Your task to perform on an android device: Search for Italian restaurants on Maps Image 0: 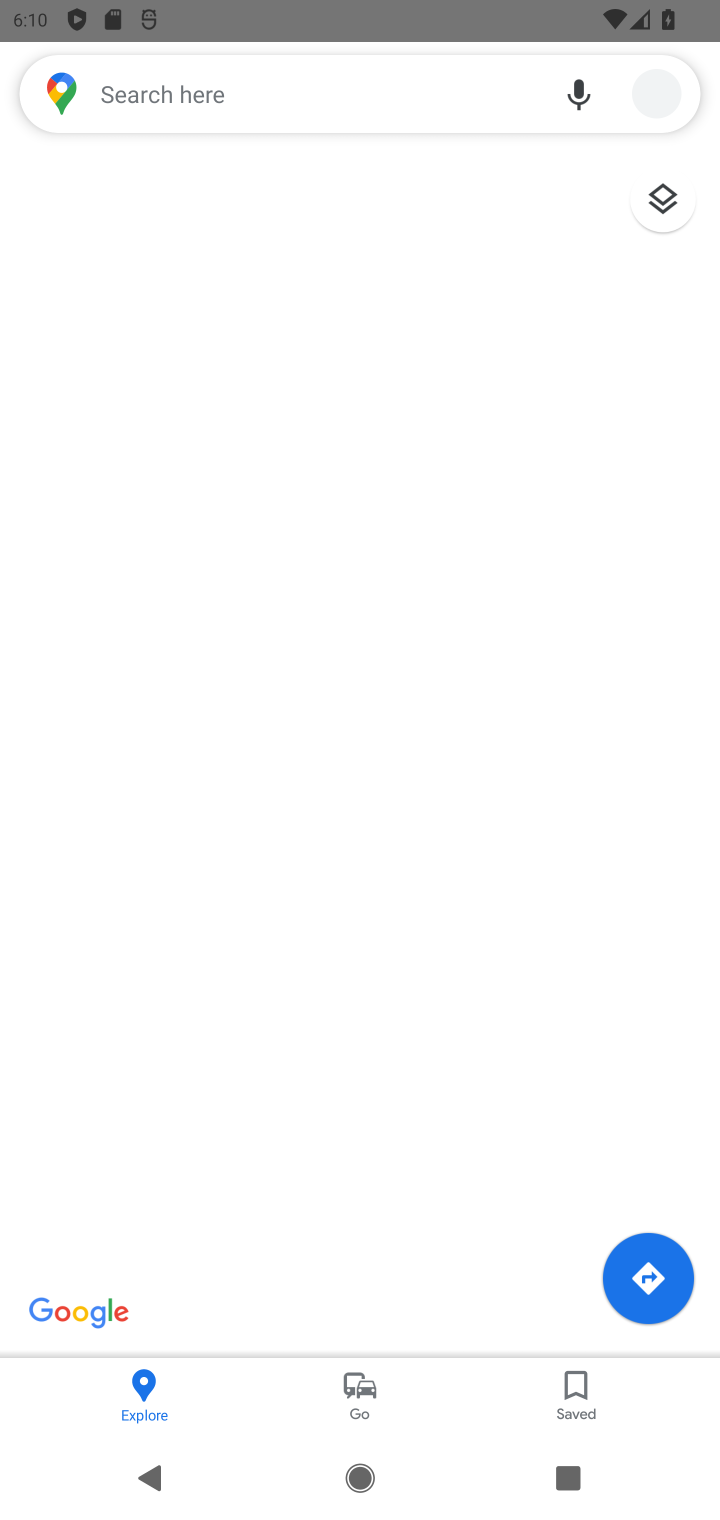
Step 0: press home button
Your task to perform on an android device: Search for Italian restaurants on Maps Image 1: 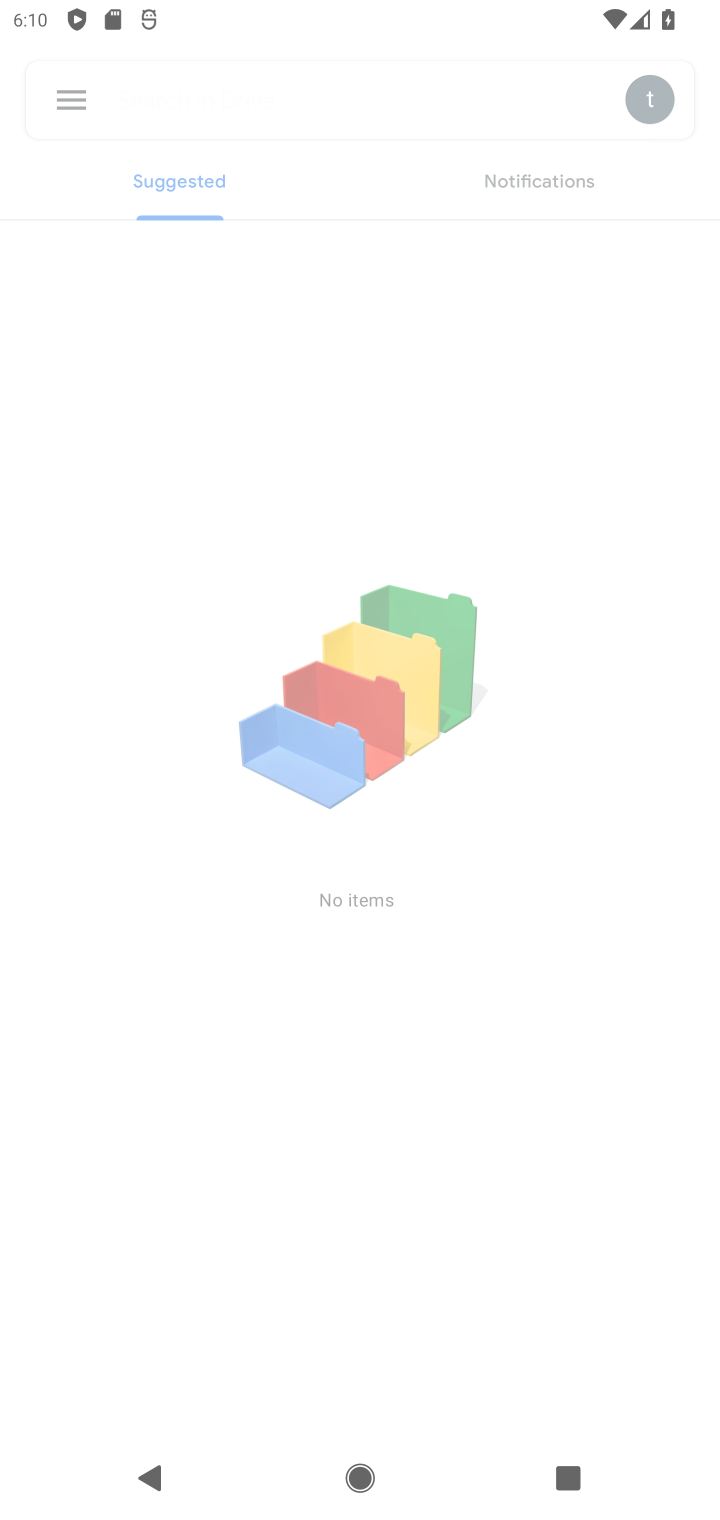
Step 1: press home button
Your task to perform on an android device: Search for Italian restaurants on Maps Image 2: 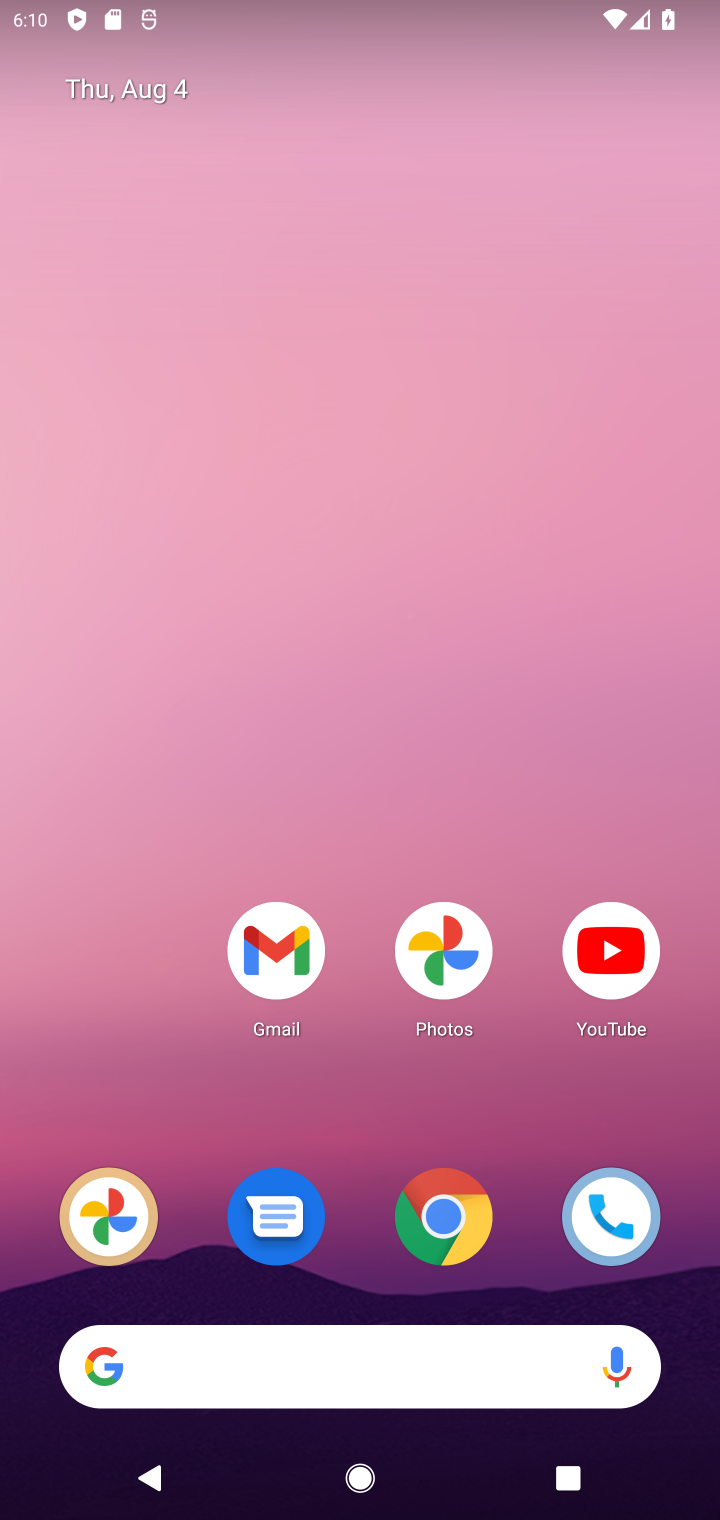
Step 2: drag from (360, 1128) to (300, 259)
Your task to perform on an android device: Search for Italian restaurants on Maps Image 3: 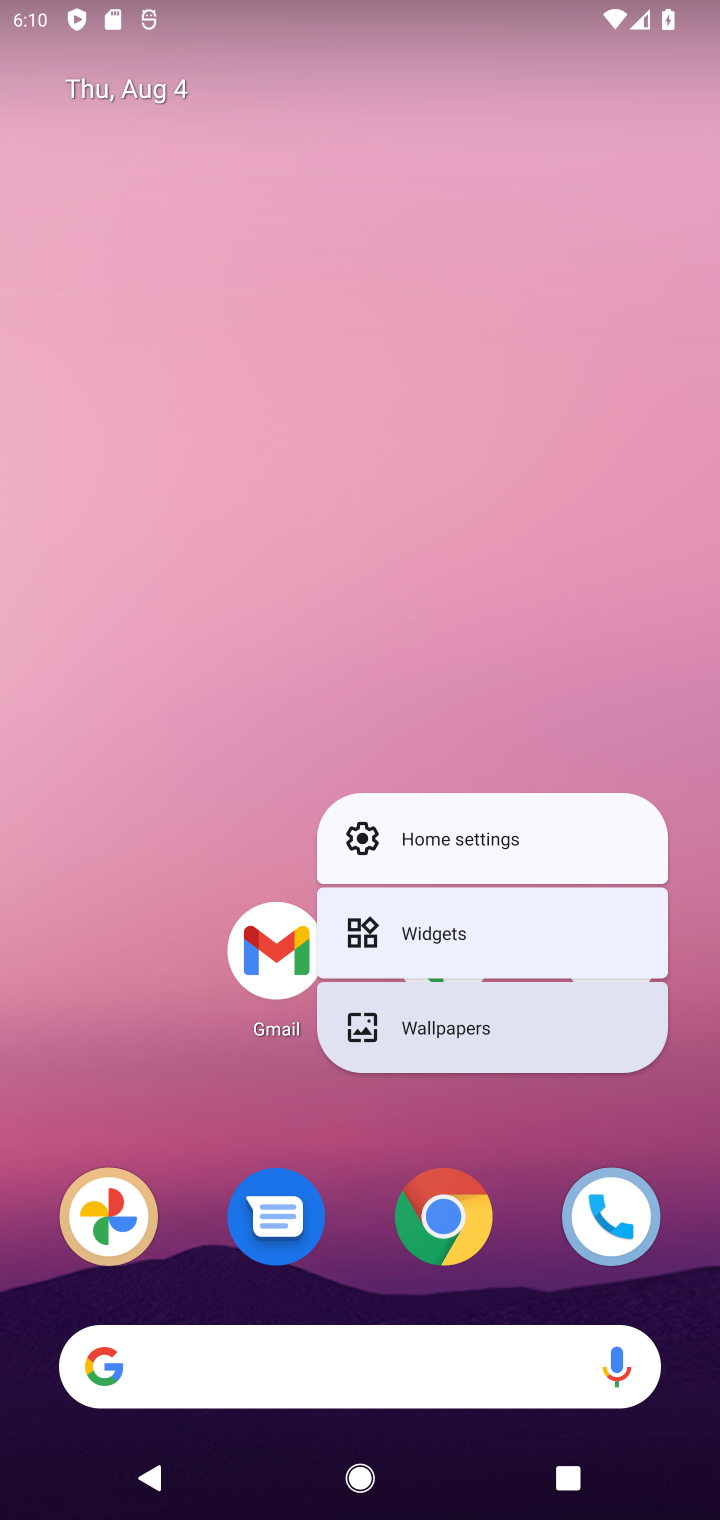
Step 3: click (341, 394)
Your task to perform on an android device: Search for Italian restaurants on Maps Image 4: 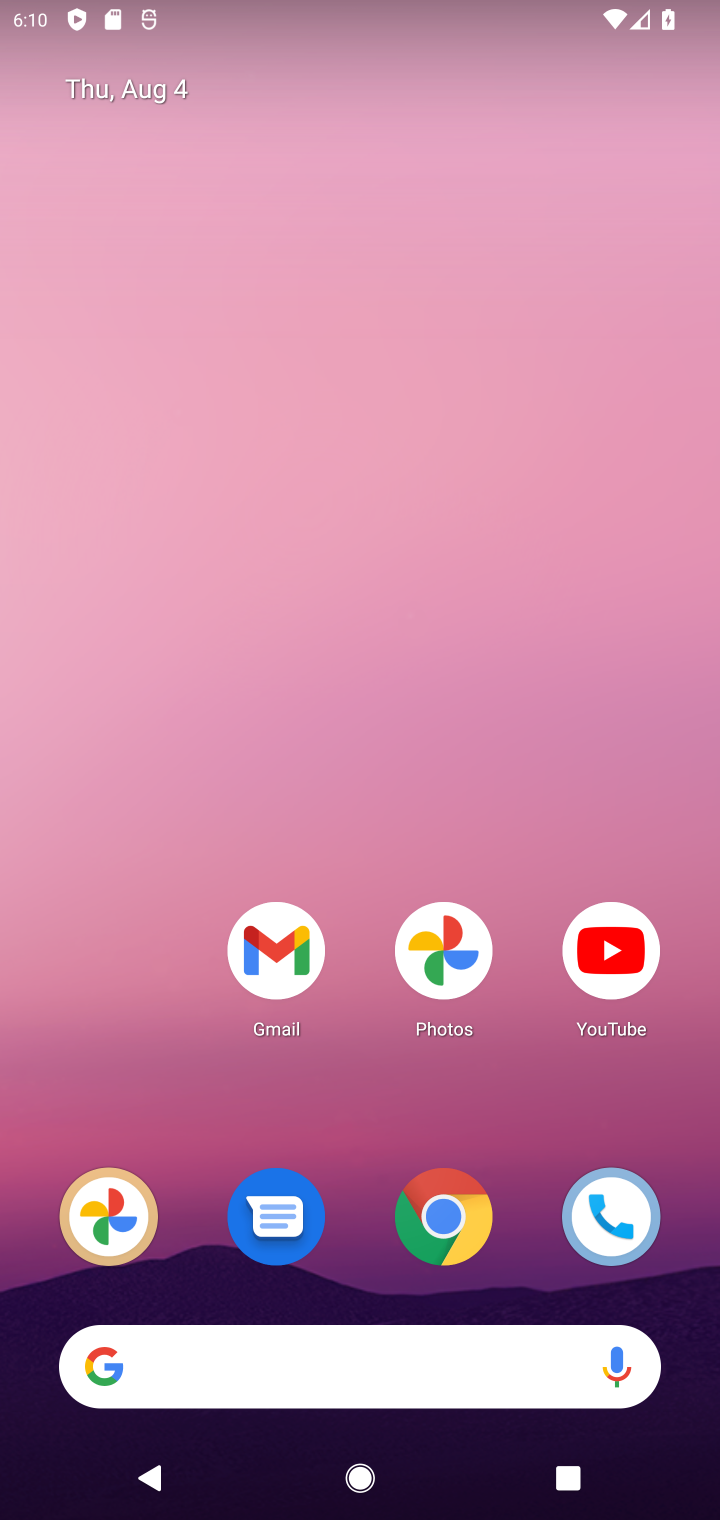
Step 4: drag from (351, 995) to (314, 232)
Your task to perform on an android device: Search for Italian restaurants on Maps Image 5: 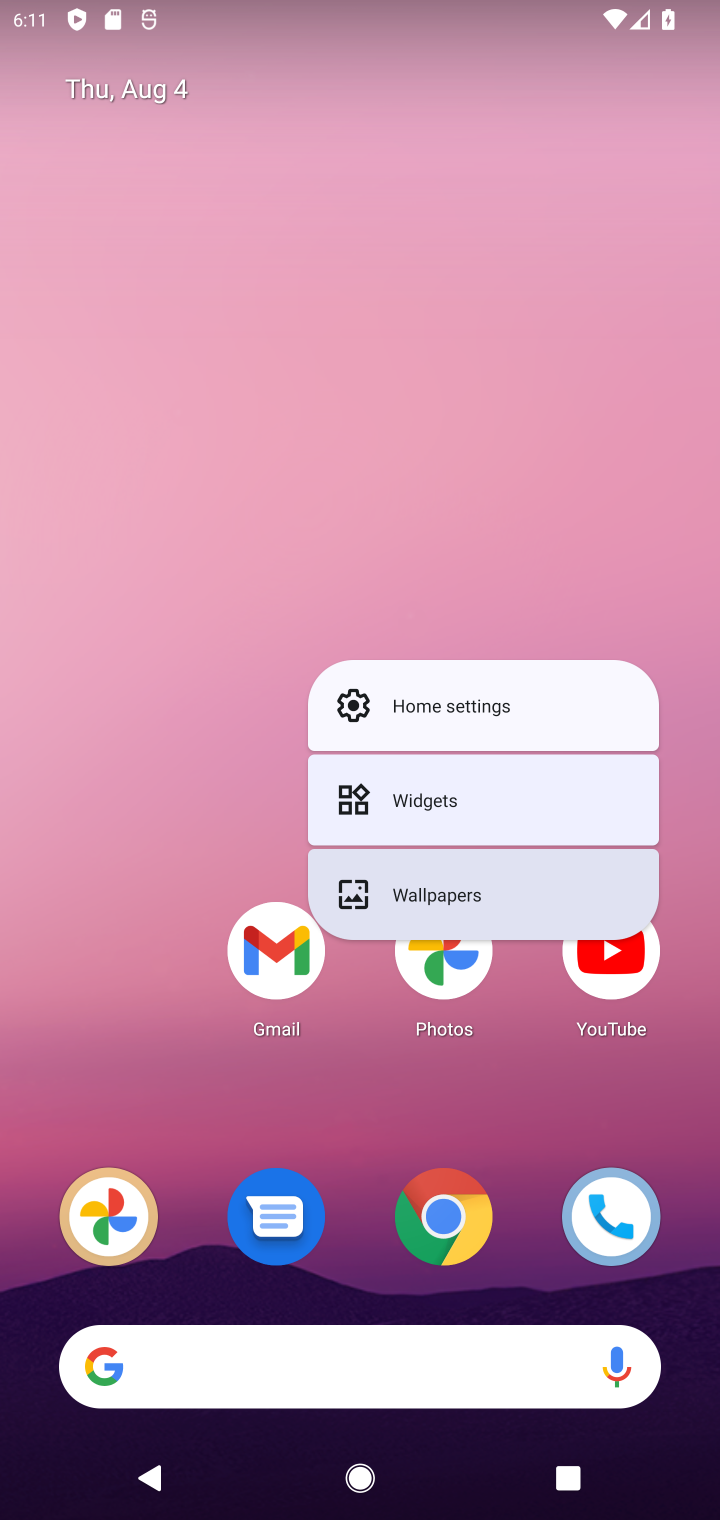
Step 5: drag from (385, 1135) to (350, 202)
Your task to perform on an android device: Search for Italian restaurants on Maps Image 6: 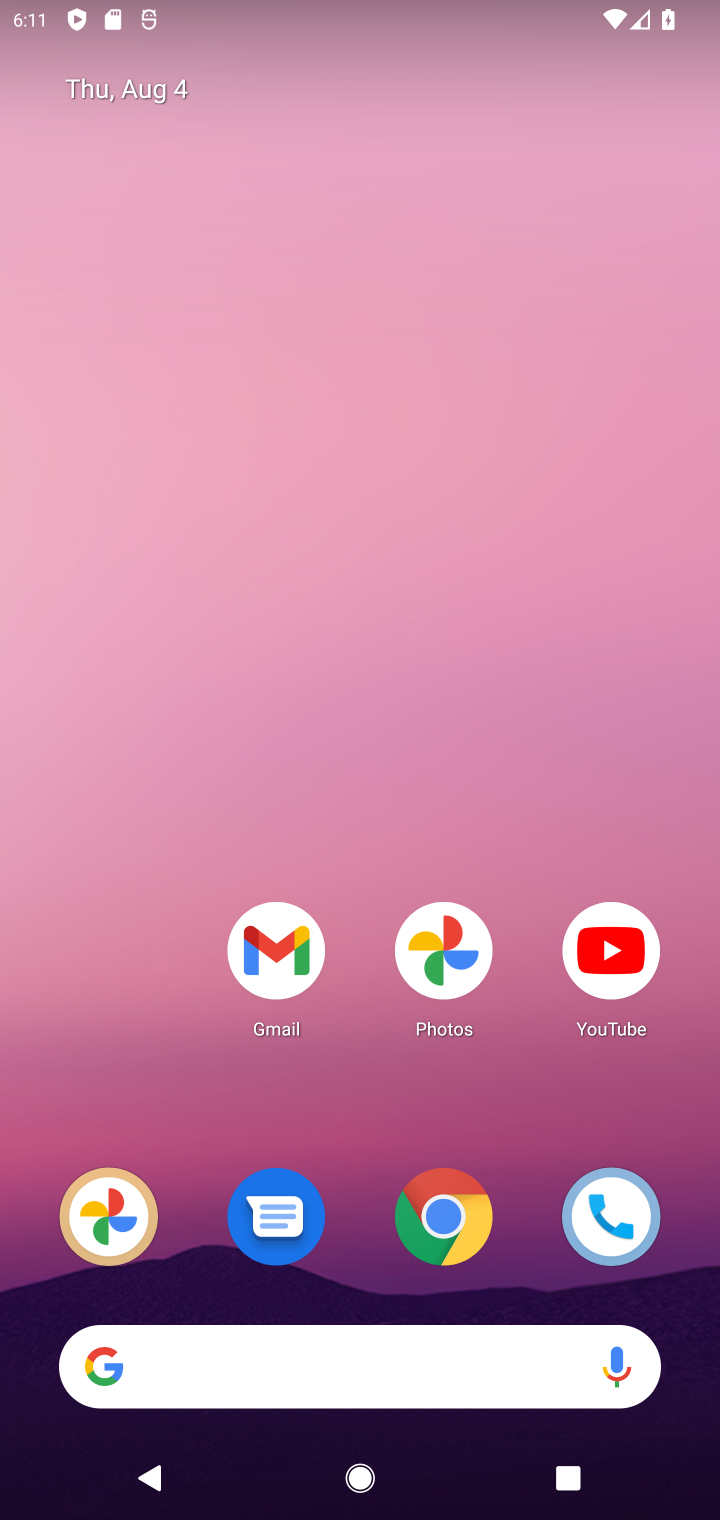
Step 6: drag from (358, 1132) to (374, 102)
Your task to perform on an android device: Search for Italian restaurants on Maps Image 7: 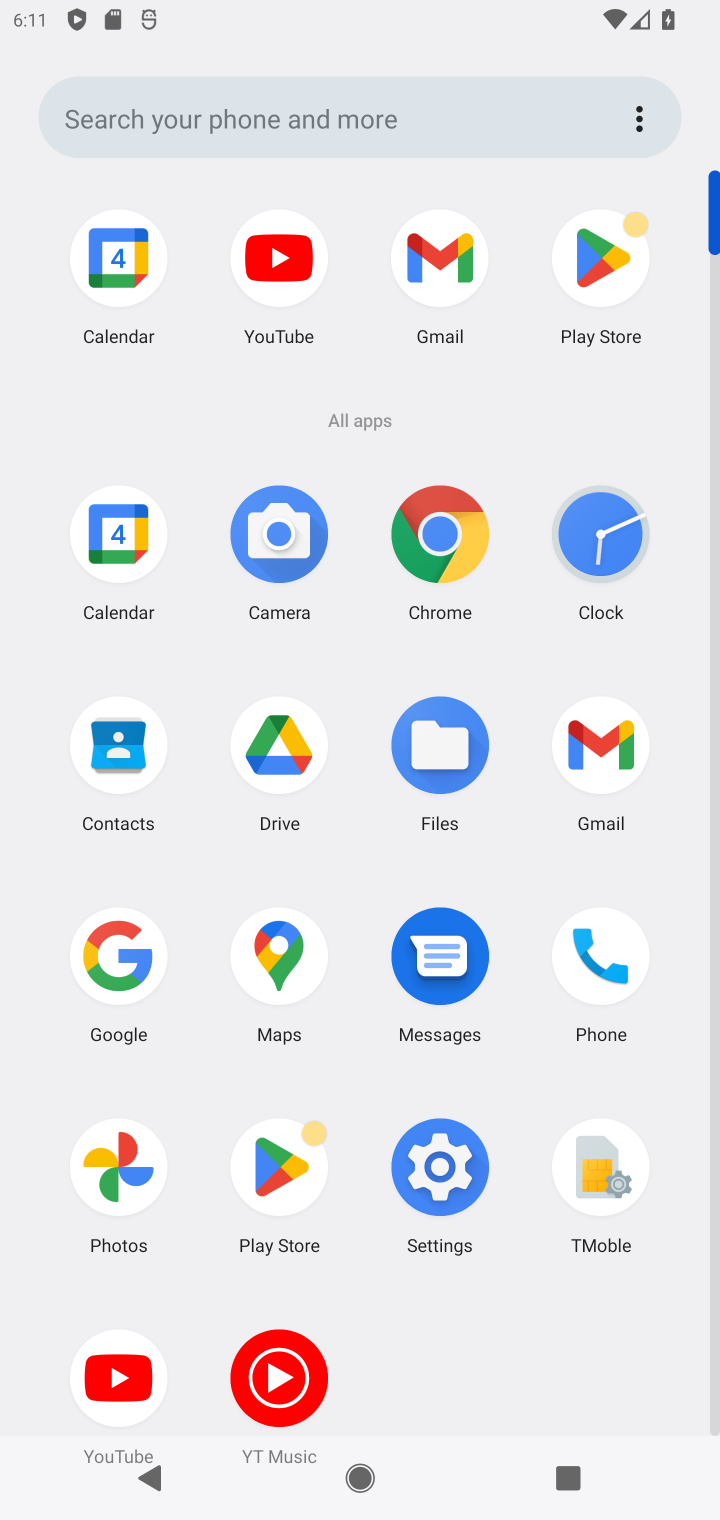
Step 7: click (270, 955)
Your task to perform on an android device: Search for Italian restaurants on Maps Image 8: 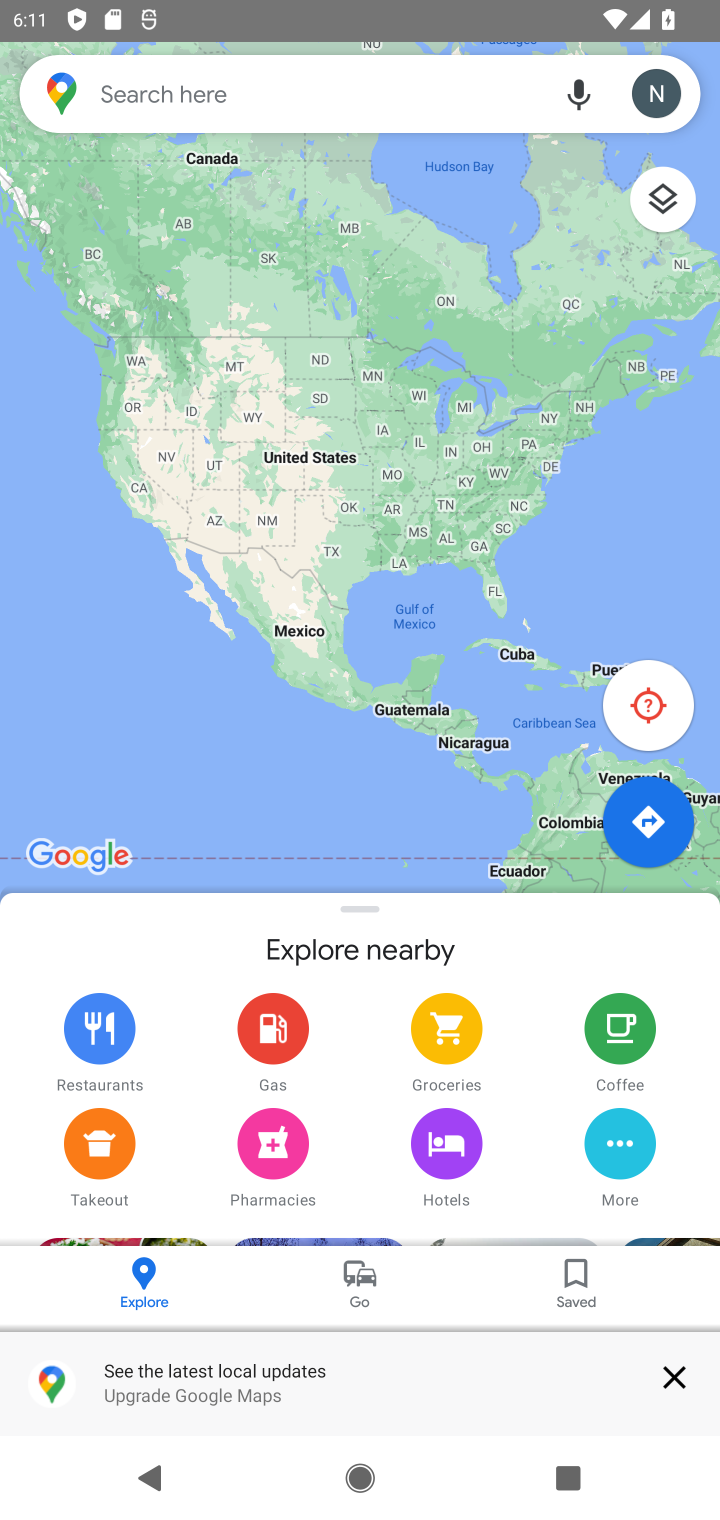
Step 8: click (251, 81)
Your task to perform on an android device: Search for Italian restaurants on Maps Image 9: 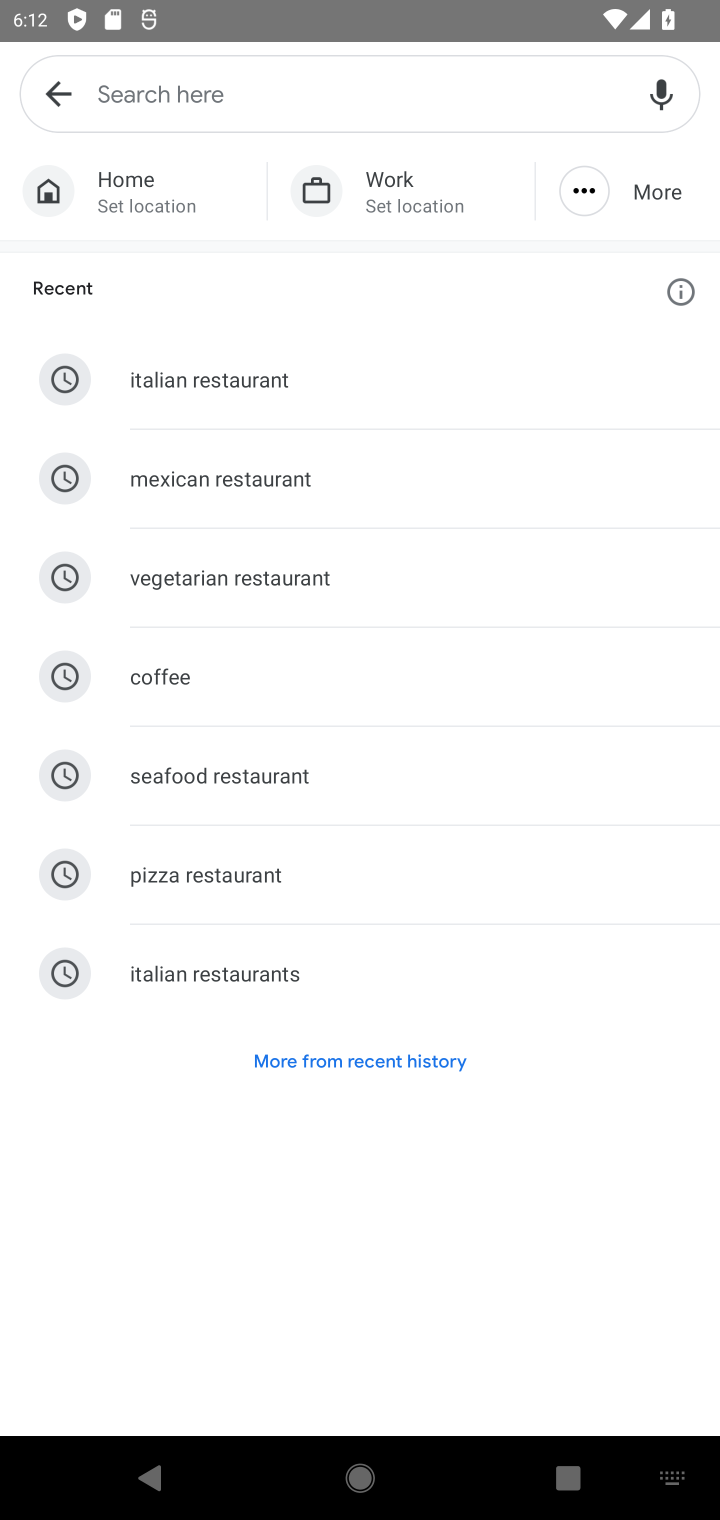
Step 9: click (361, 973)
Your task to perform on an android device: Search for Italian restaurants on Maps Image 10: 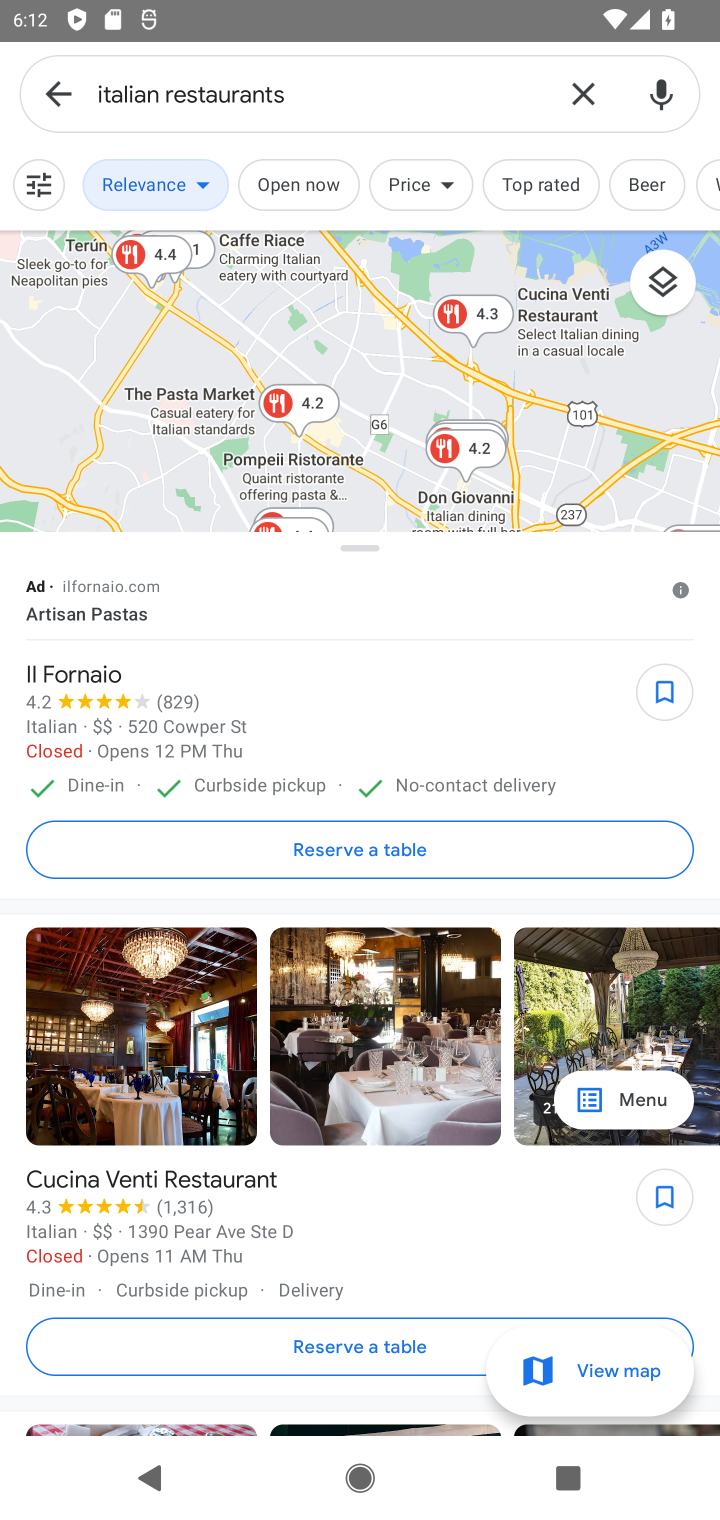
Step 10: click (39, 91)
Your task to perform on an android device: Search for Italian restaurants on Maps Image 11: 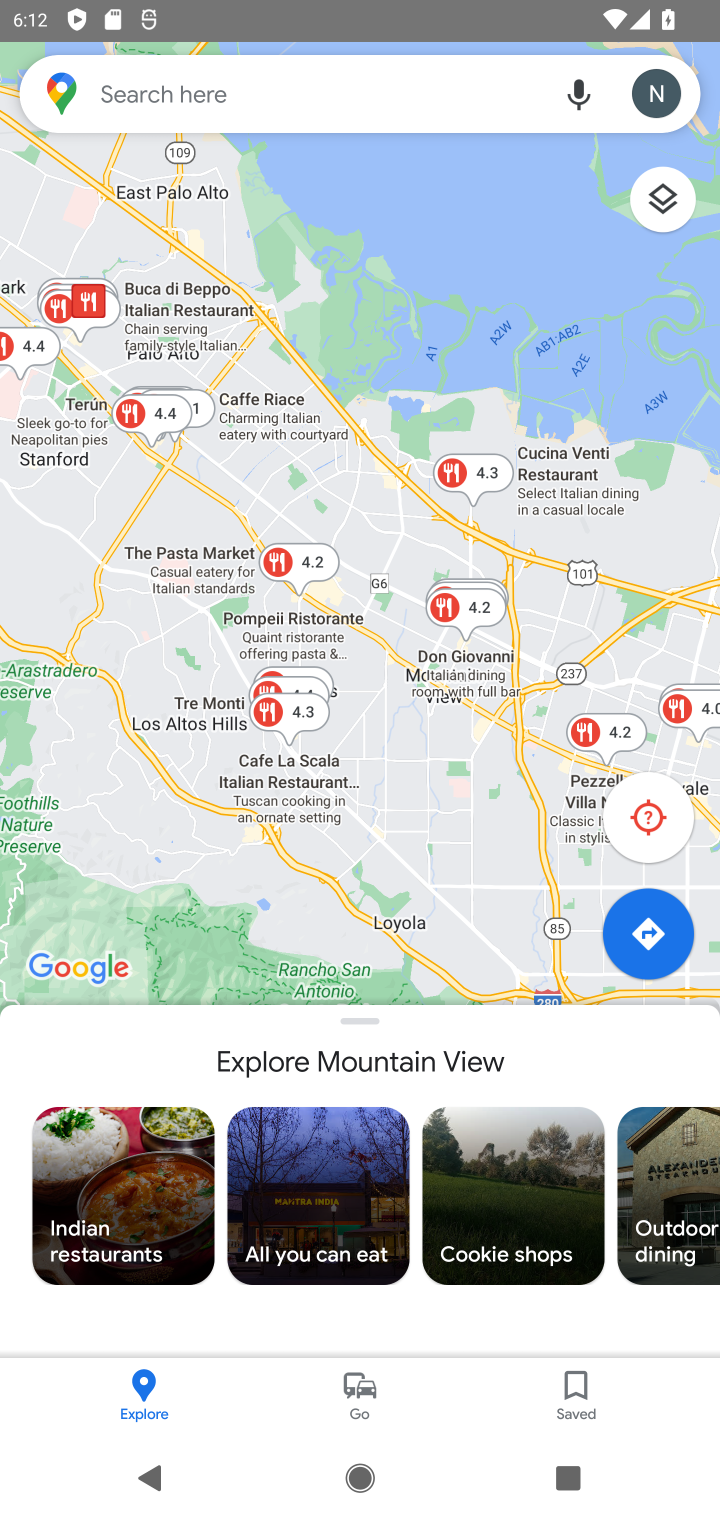
Step 11: click (380, 115)
Your task to perform on an android device: Search for Italian restaurants on Maps Image 12: 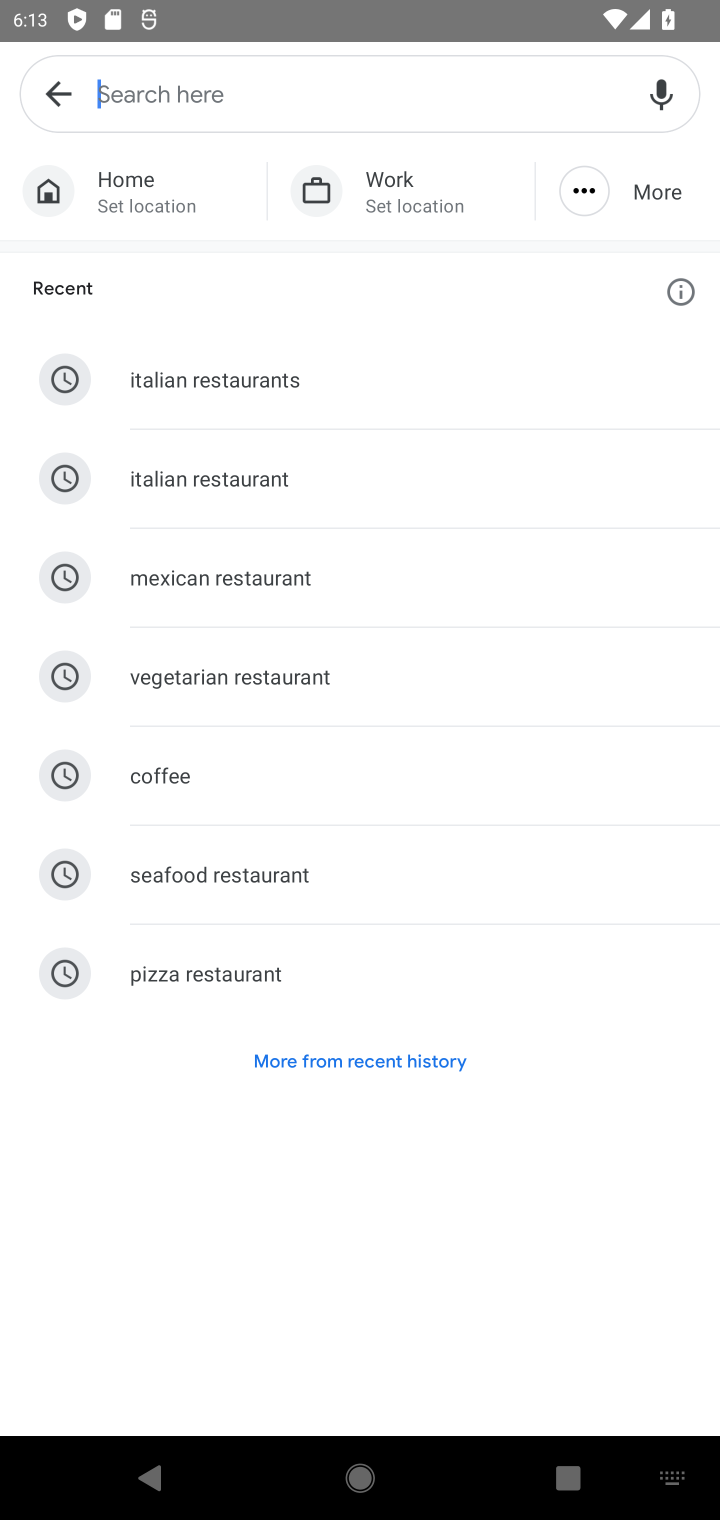
Step 12: click (398, 365)
Your task to perform on an android device: Search for Italian restaurants on Maps Image 13: 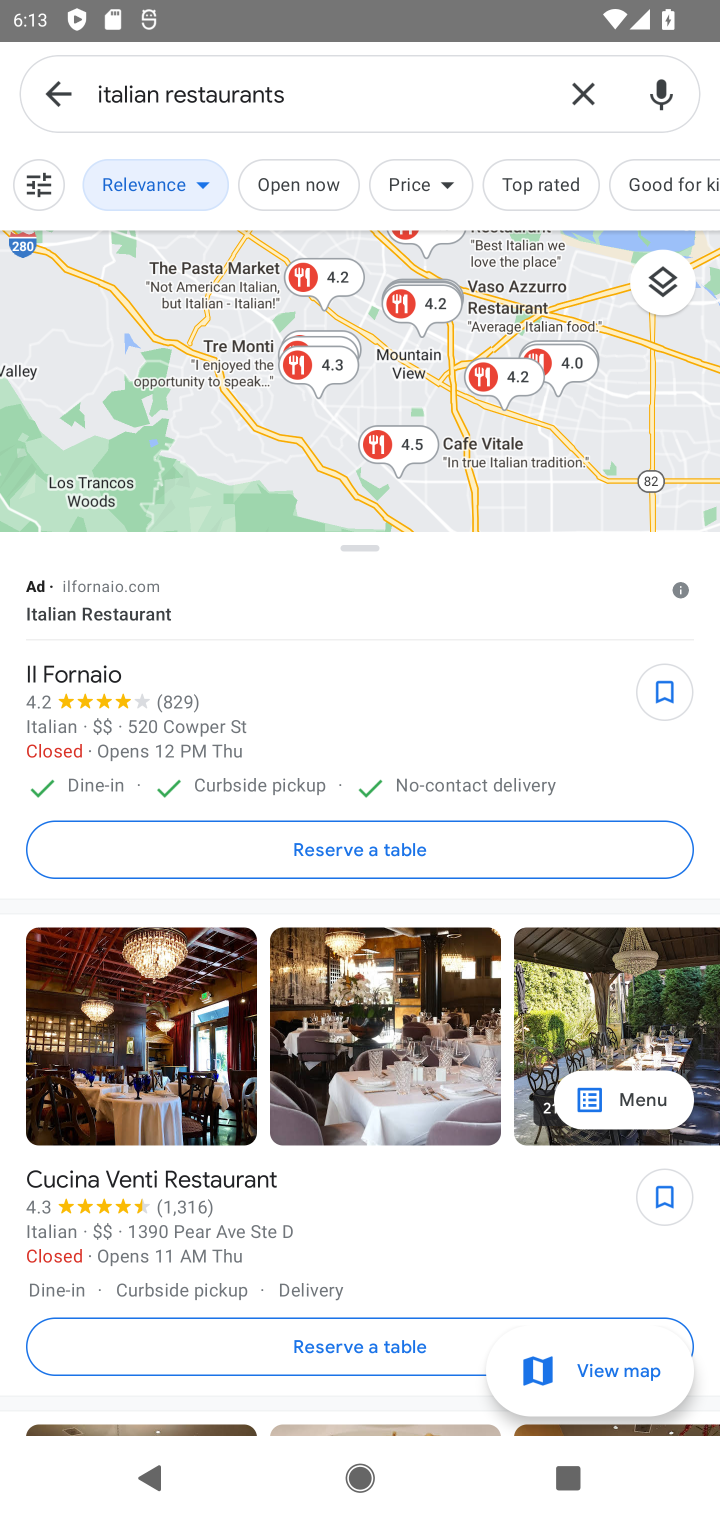
Step 13: task complete